Your task to perform on an android device: turn on wifi Image 0: 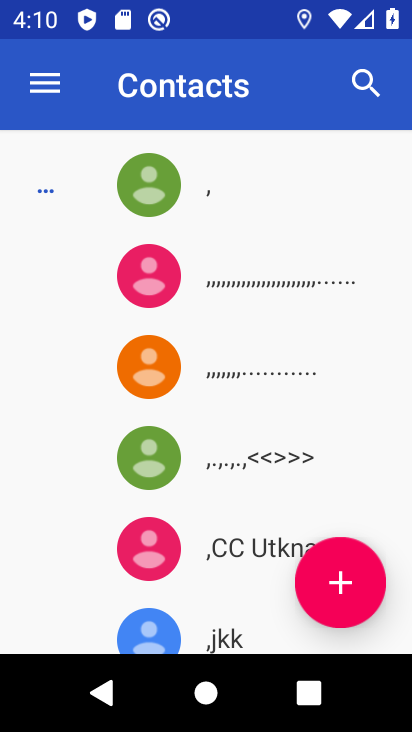
Step 0: press home button
Your task to perform on an android device: turn on wifi Image 1: 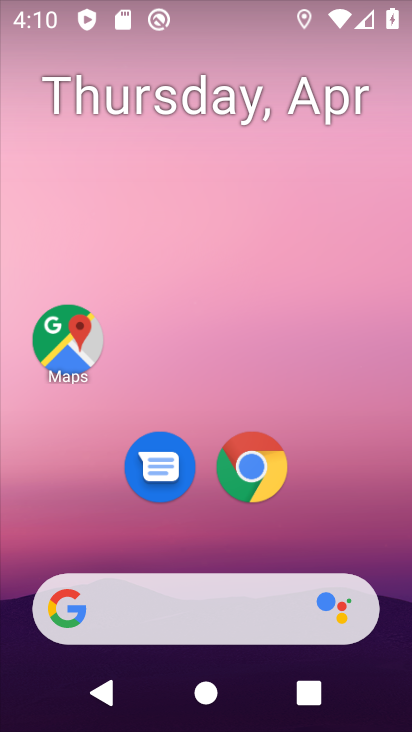
Step 1: drag from (216, 304) to (250, 5)
Your task to perform on an android device: turn on wifi Image 2: 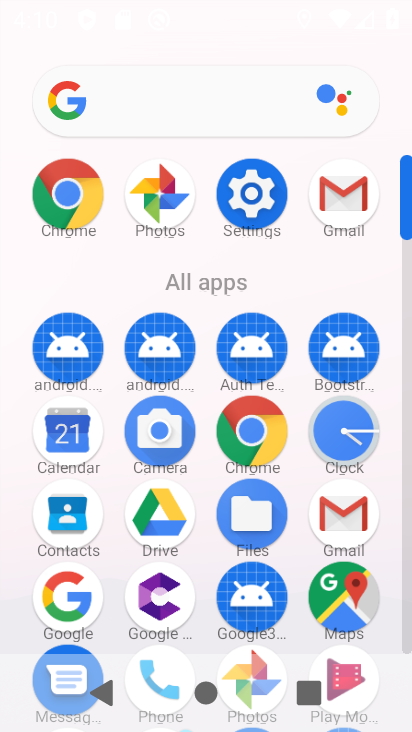
Step 2: click (252, 213)
Your task to perform on an android device: turn on wifi Image 3: 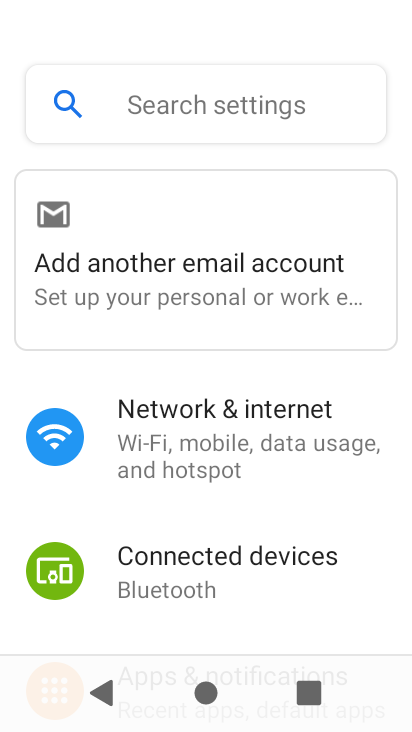
Step 3: click (187, 432)
Your task to perform on an android device: turn on wifi Image 4: 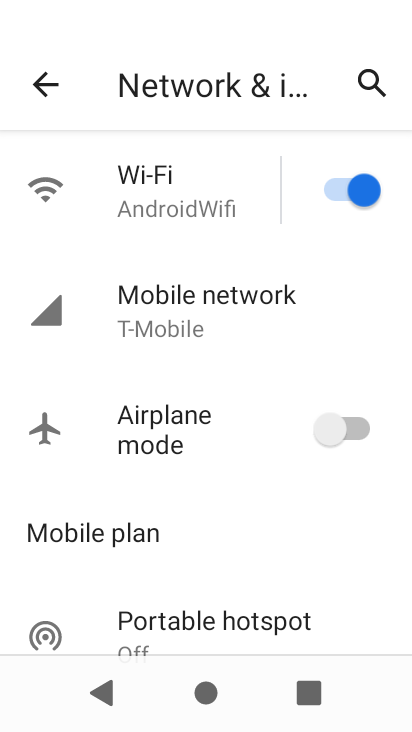
Step 4: click (146, 201)
Your task to perform on an android device: turn on wifi Image 5: 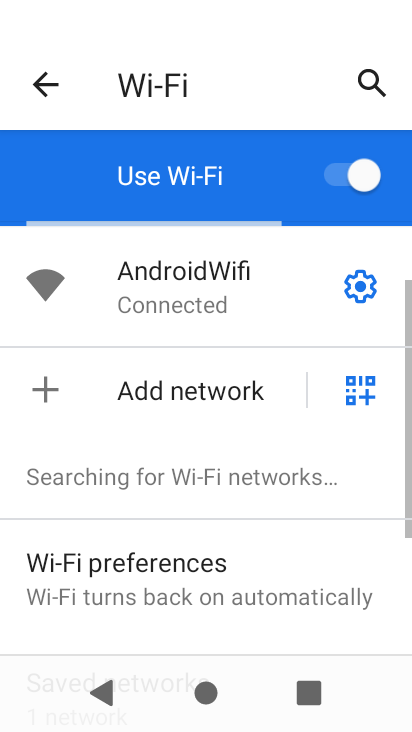
Step 5: task complete